Your task to perform on an android device: Add "razer deathadder" to the cart on newegg.com Image 0: 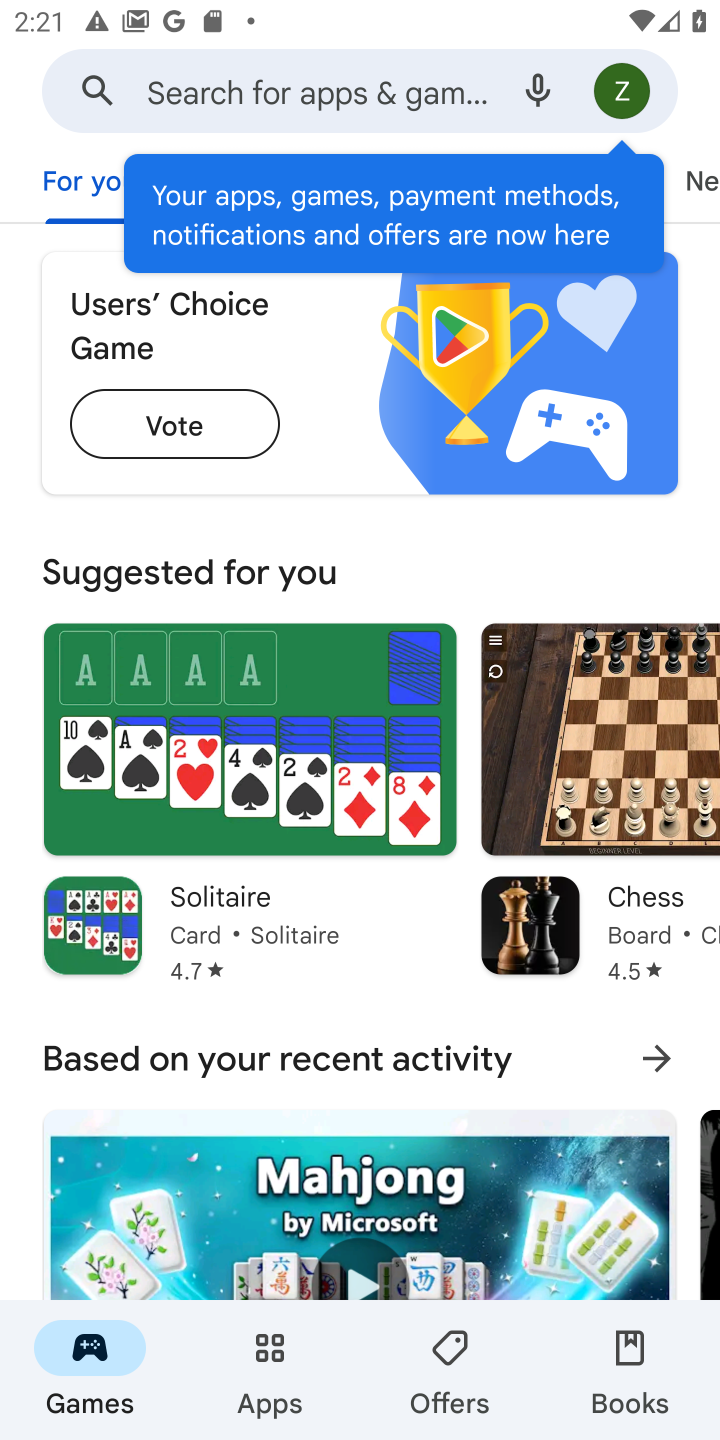
Step 0: press home button
Your task to perform on an android device: Add "razer deathadder" to the cart on newegg.com Image 1: 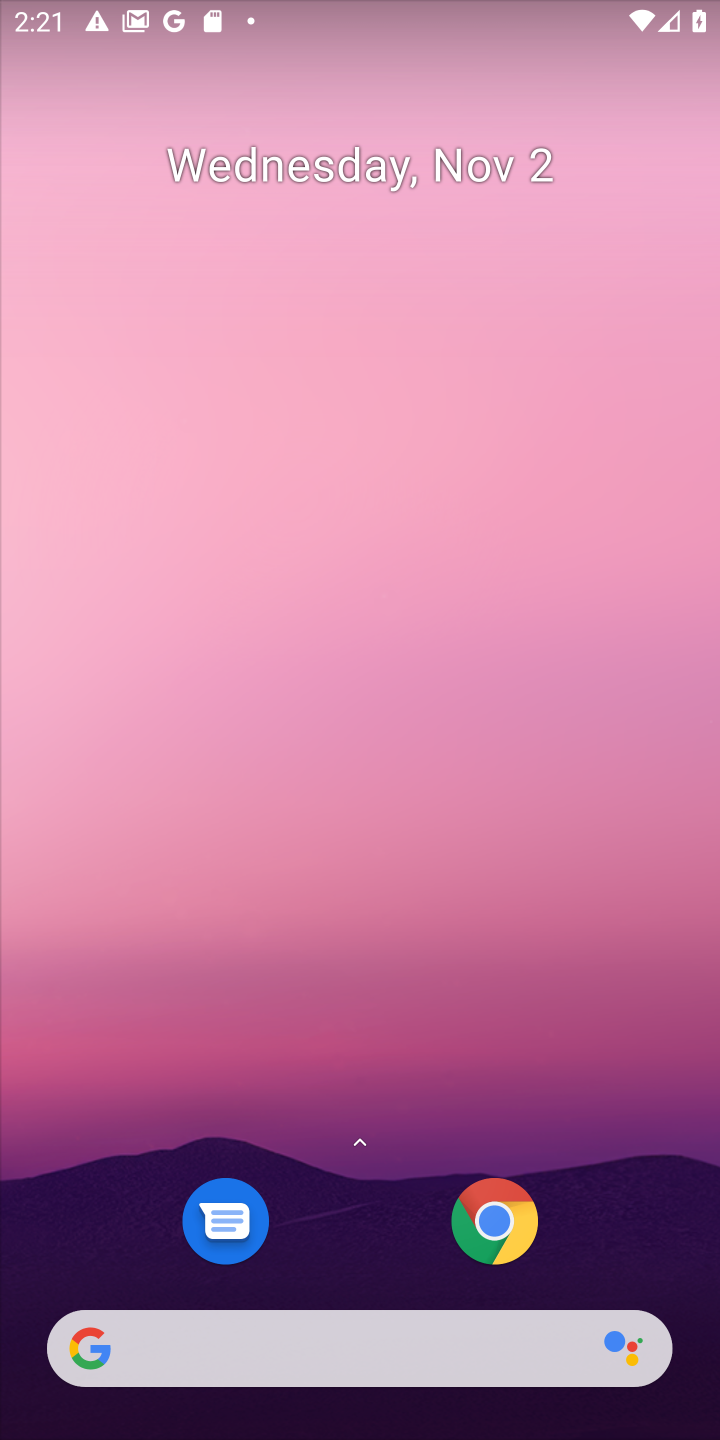
Step 1: task complete